Your task to perform on an android device: open app "Contacts" Image 0: 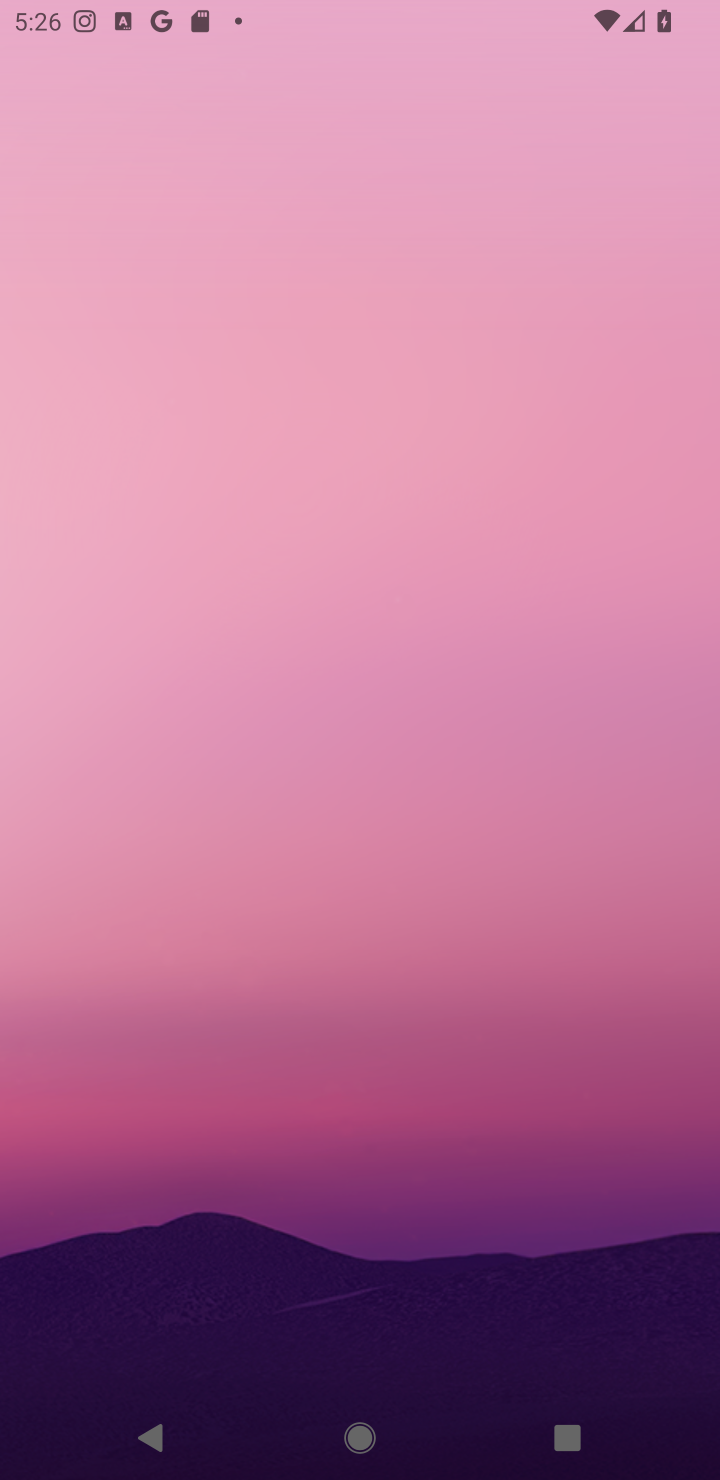
Step 0: press home button
Your task to perform on an android device: open app "Contacts" Image 1: 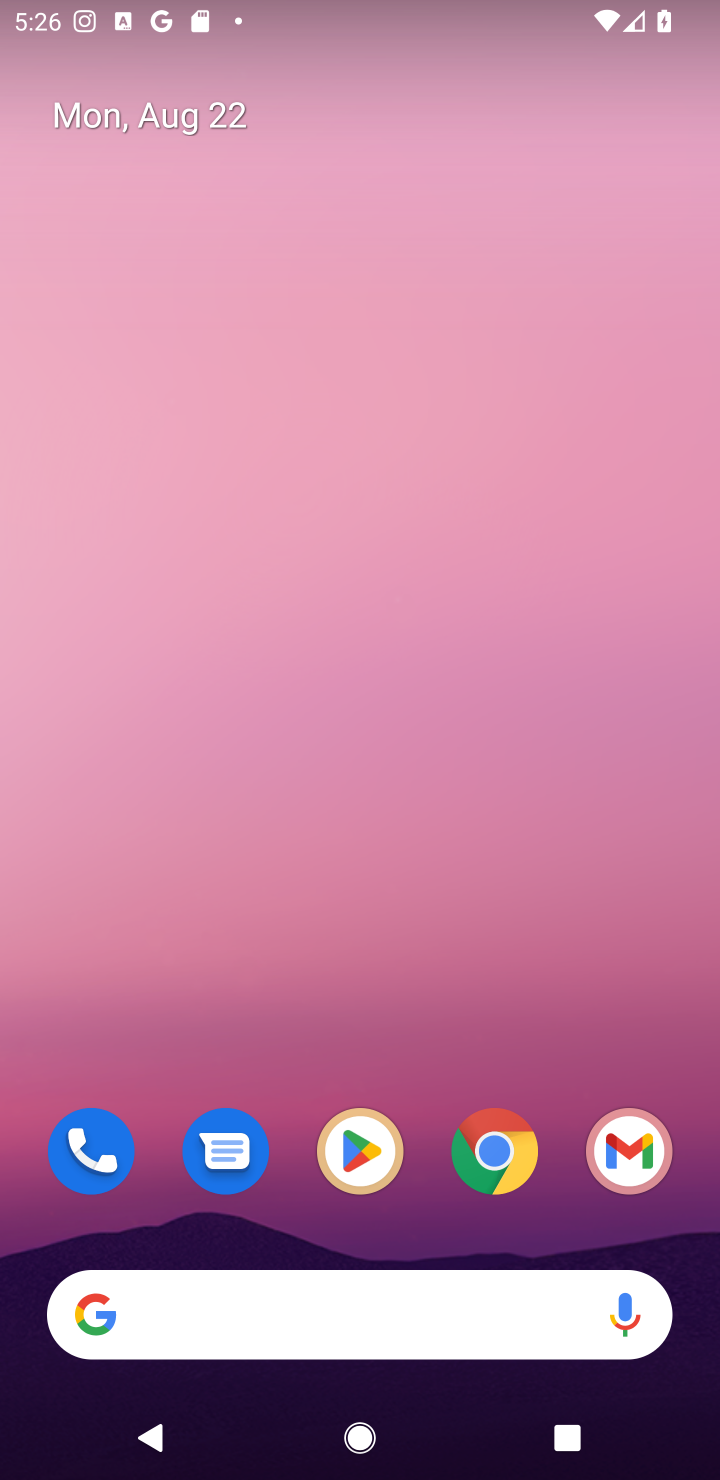
Step 1: press home button
Your task to perform on an android device: open app "Contacts" Image 2: 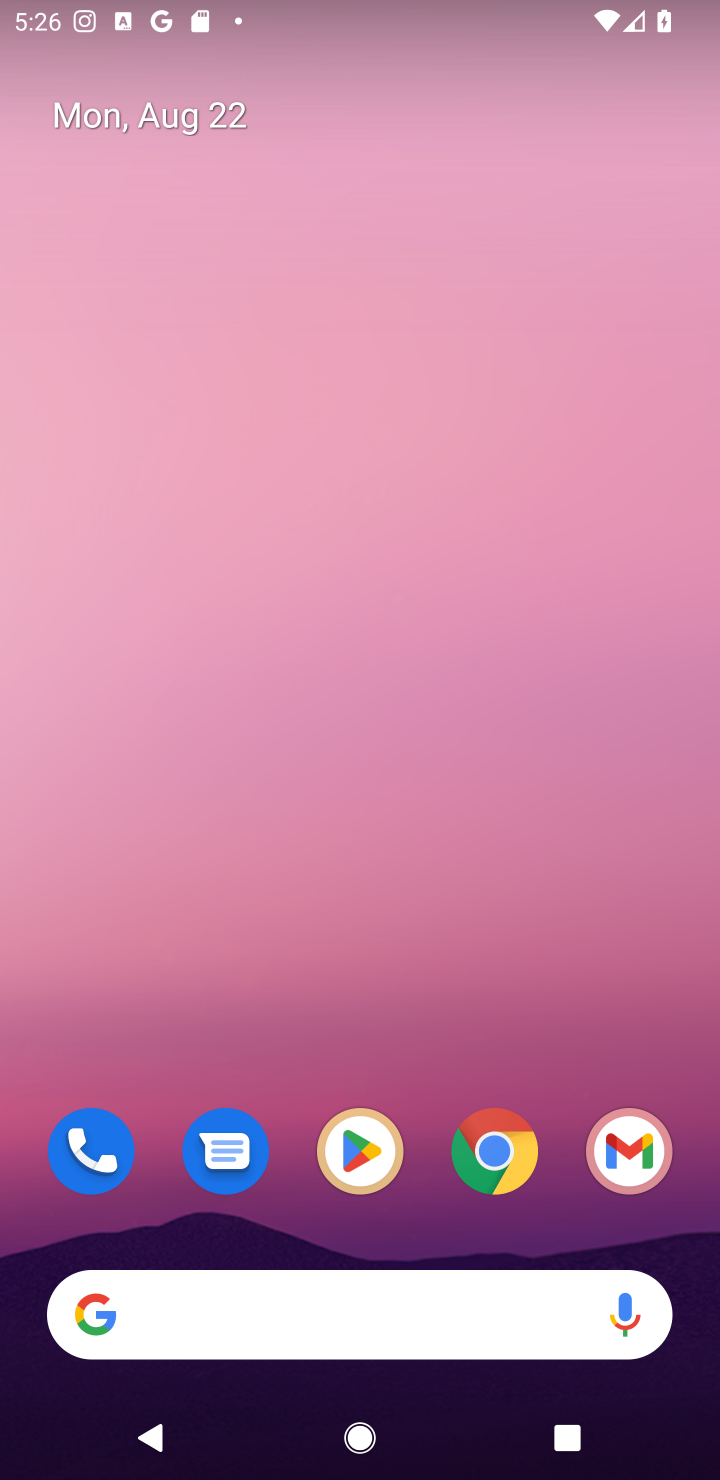
Step 2: click (344, 1153)
Your task to perform on an android device: open app "Contacts" Image 3: 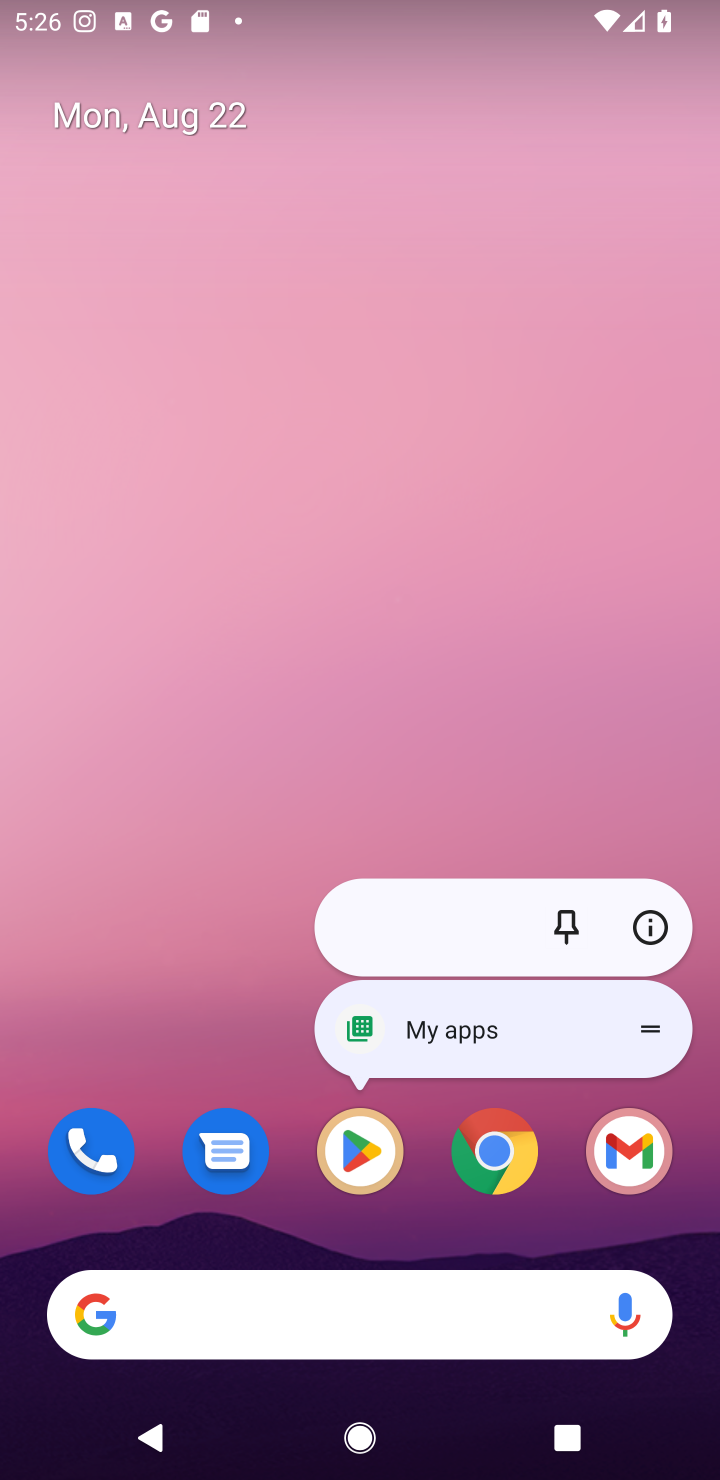
Step 3: click (348, 1149)
Your task to perform on an android device: open app "Contacts" Image 4: 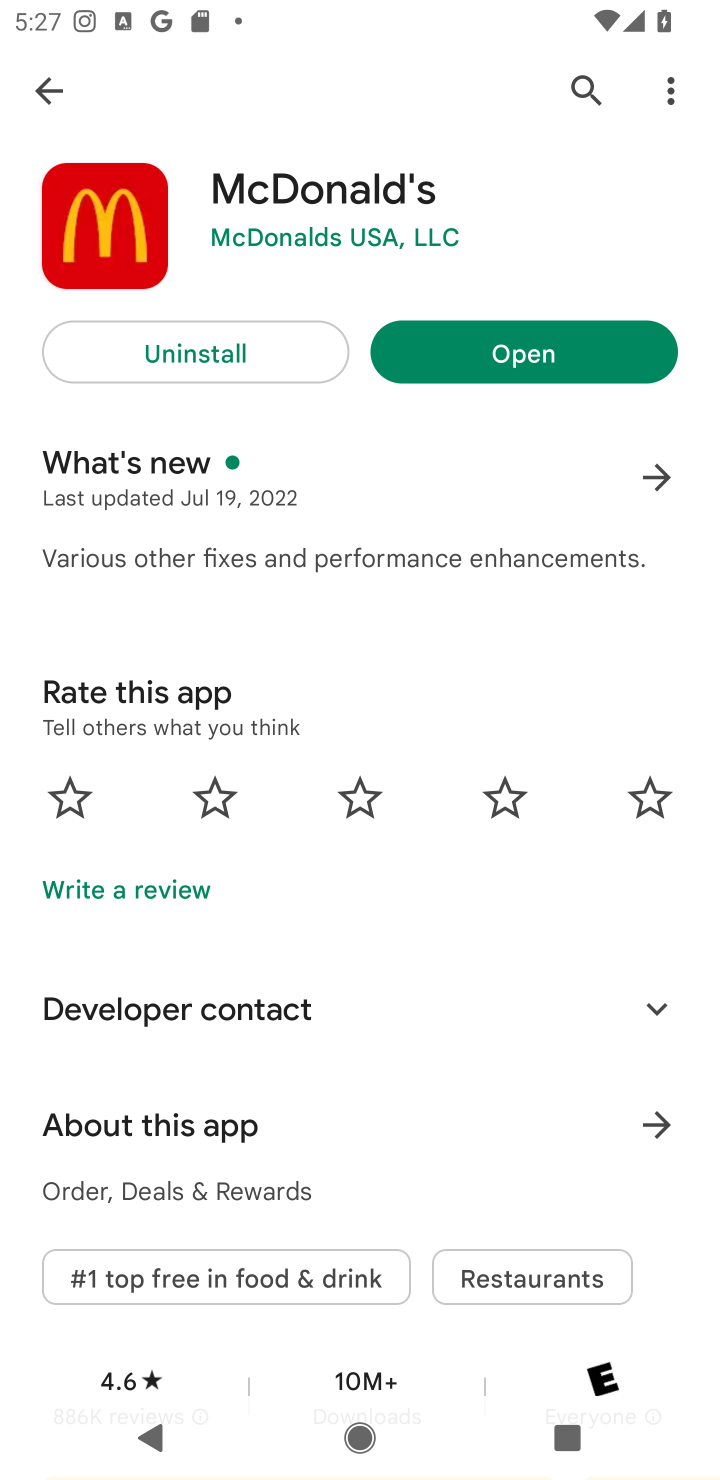
Step 4: click (581, 73)
Your task to perform on an android device: open app "Contacts" Image 5: 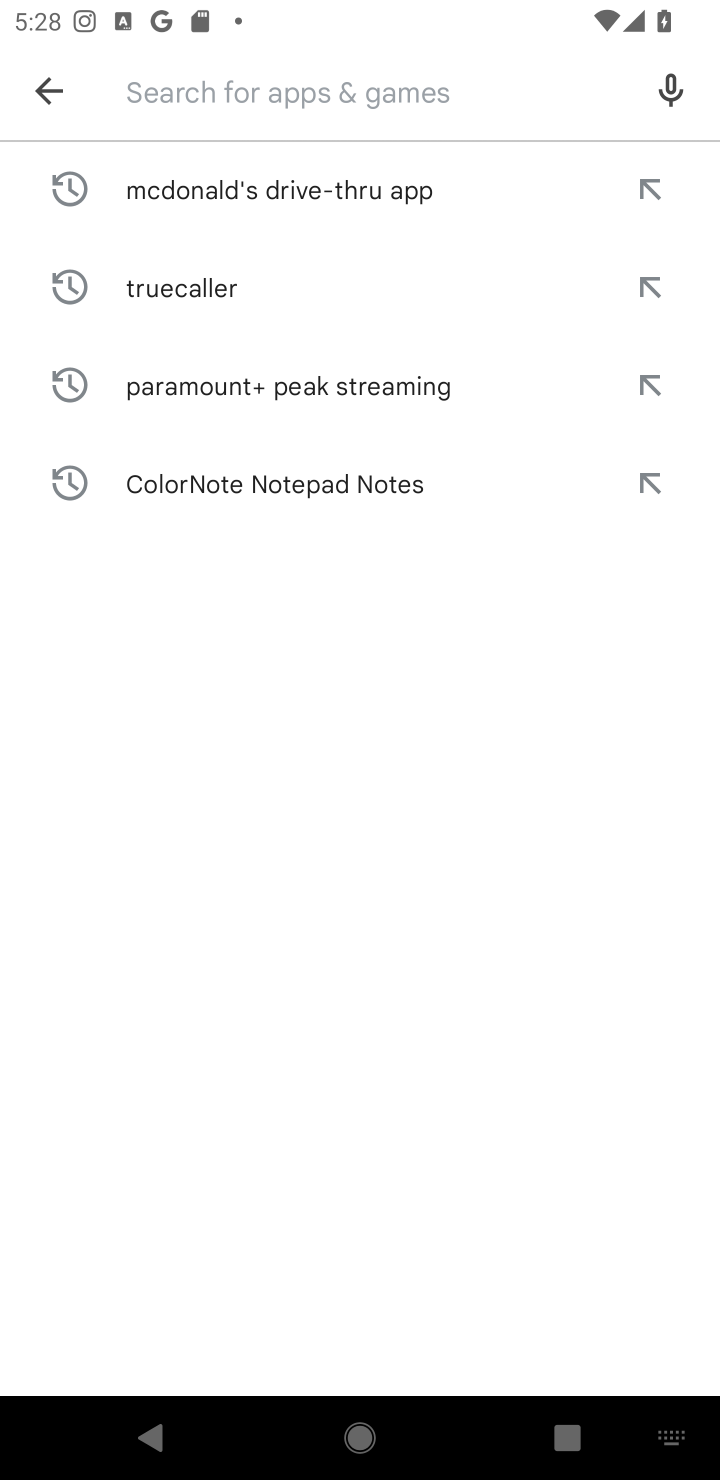
Step 5: type "Contacts"
Your task to perform on an android device: open app "Contacts" Image 6: 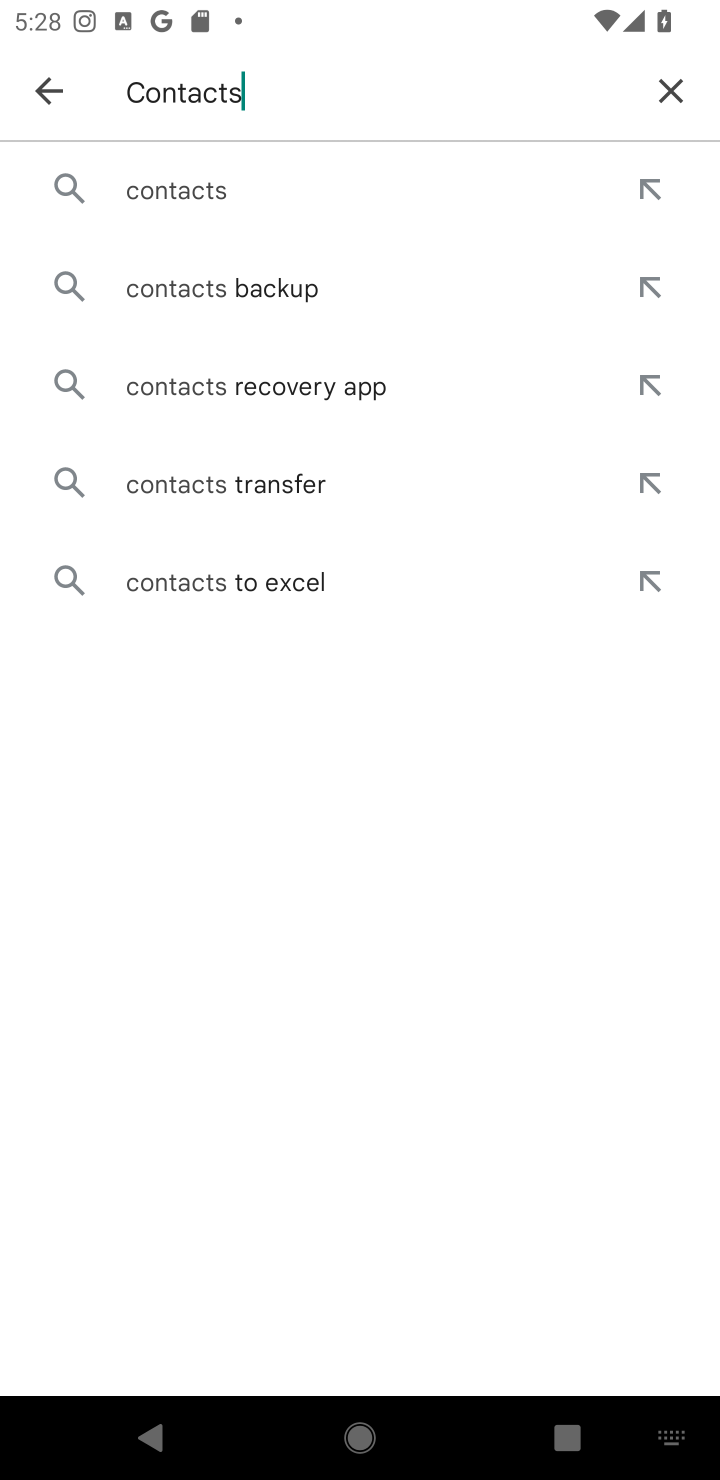
Step 6: click (289, 198)
Your task to perform on an android device: open app "Contacts" Image 7: 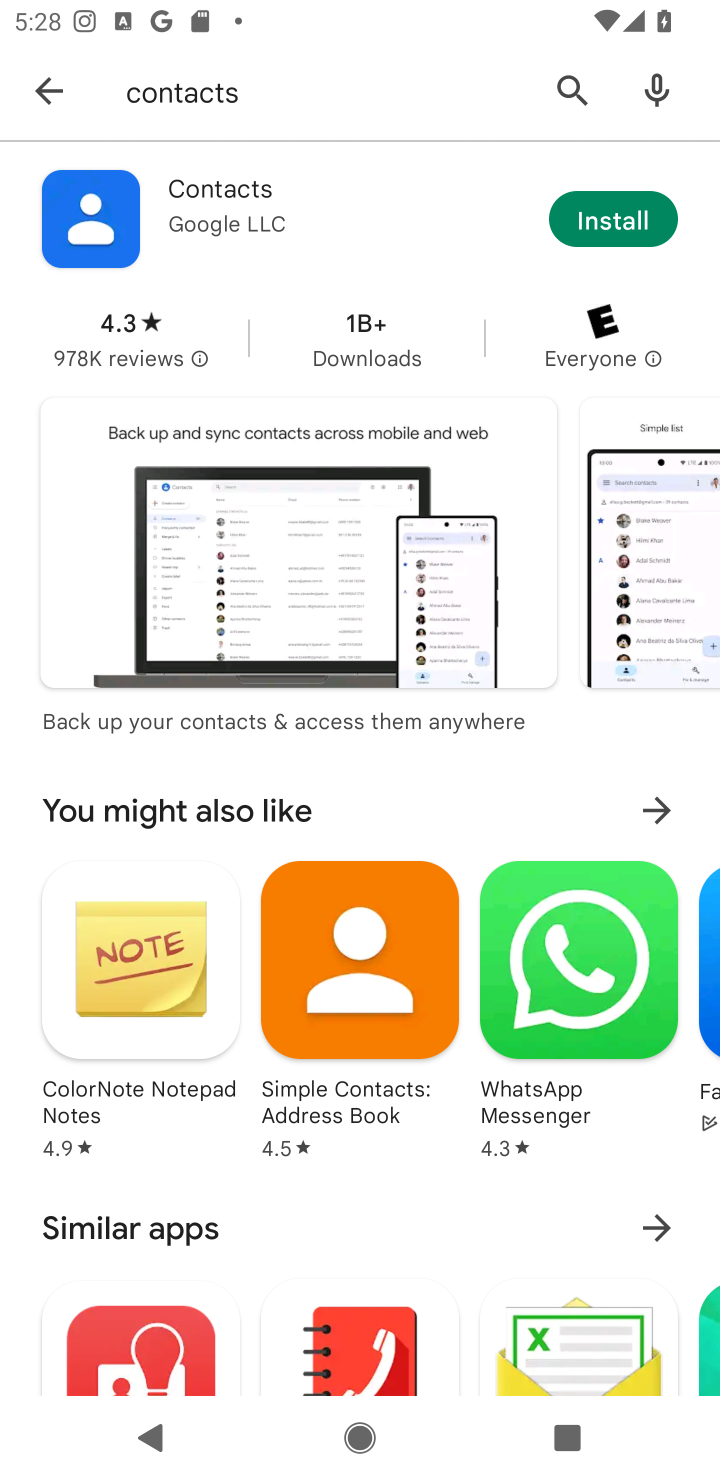
Step 7: task complete